Your task to perform on an android device: Go to display settings Image 0: 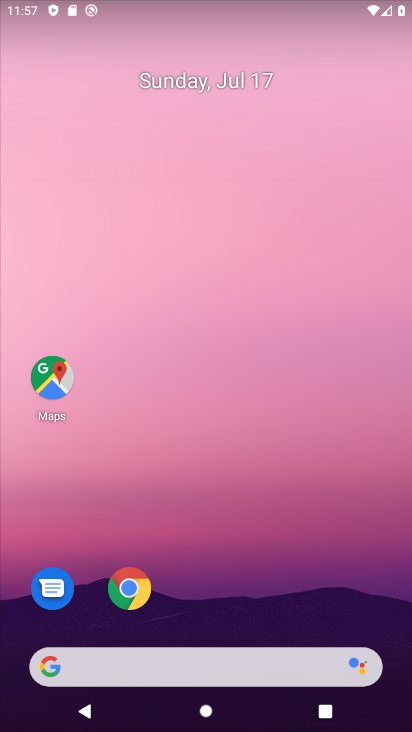
Step 0: drag from (221, 730) to (219, 98)
Your task to perform on an android device: Go to display settings Image 1: 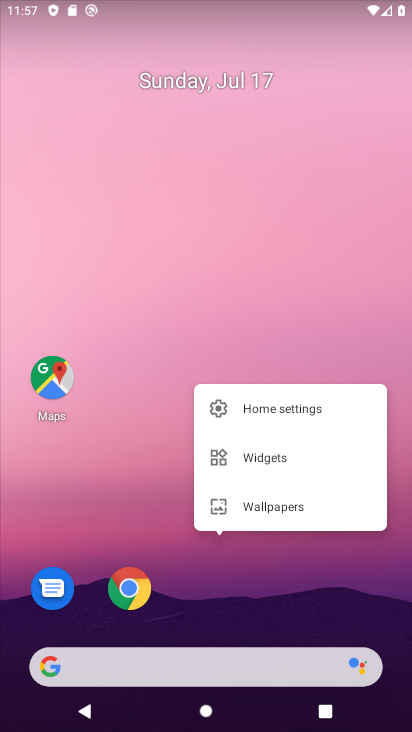
Step 1: click (160, 398)
Your task to perform on an android device: Go to display settings Image 2: 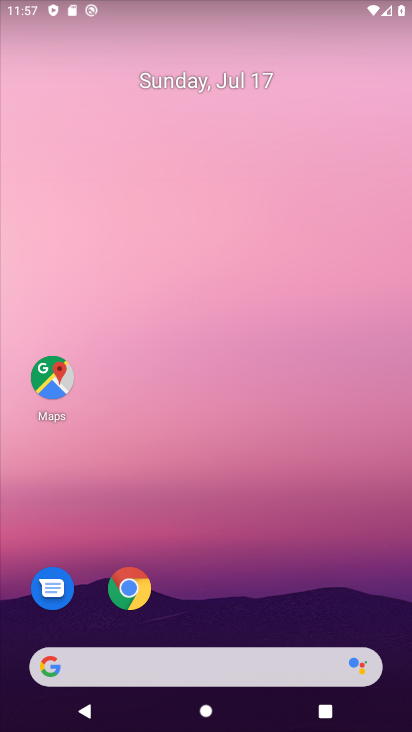
Step 2: drag from (229, 718) to (233, 32)
Your task to perform on an android device: Go to display settings Image 3: 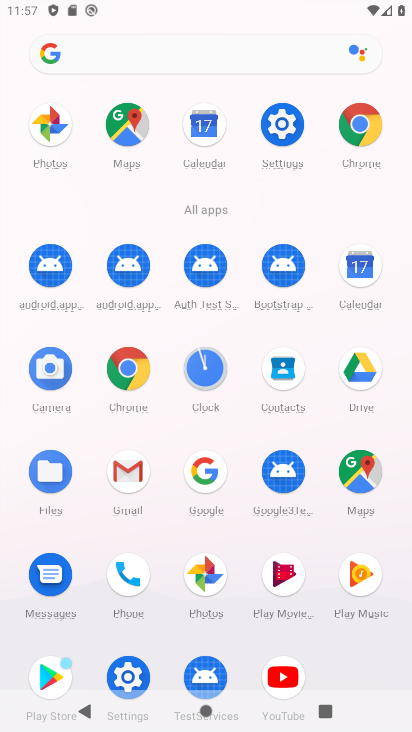
Step 3: click (286, 120)
Your task to perform on an android device: Go to display settings Image 4: 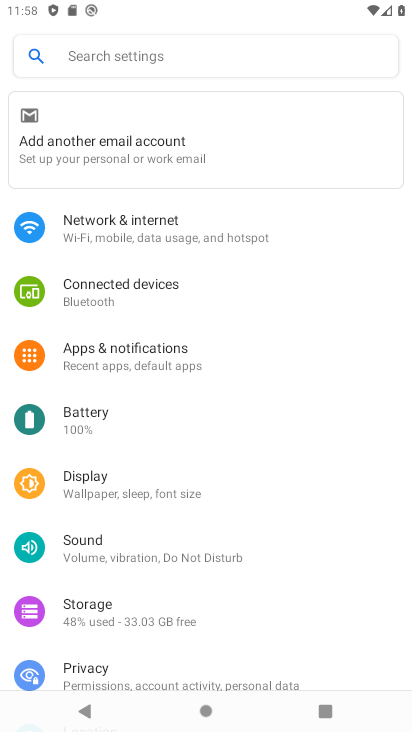
Step 4: click (86, 482)
Your task to perform on an android device: Go to display settings Image 5: 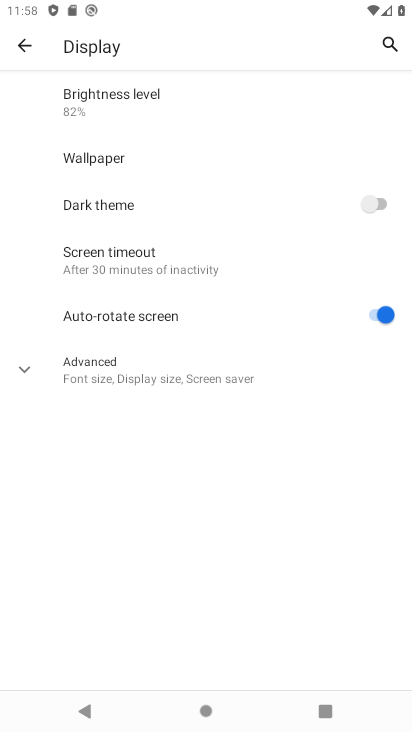
Step 5: task complete